Your task to perform on an android device: turn off translation in the chrome app Image 0: 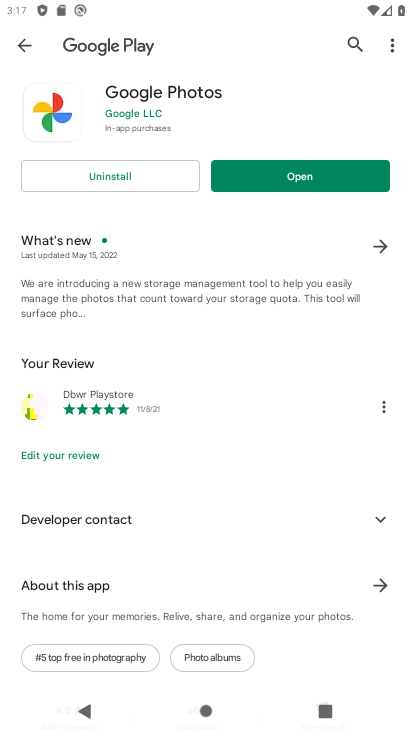
Step 0: press home button
Your task to perform on an android device: turn off translation in the chrome app Image 1: 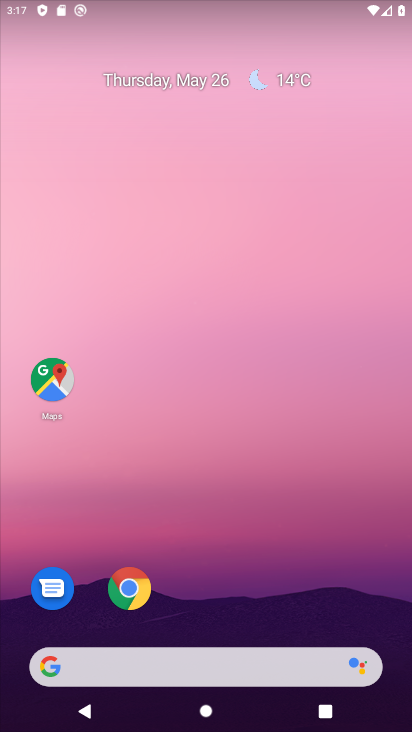
Step 1: drag from (217, 639) to (269, 159)
Your task to perform on an android device: turn off translation in the chrome app Image 2: 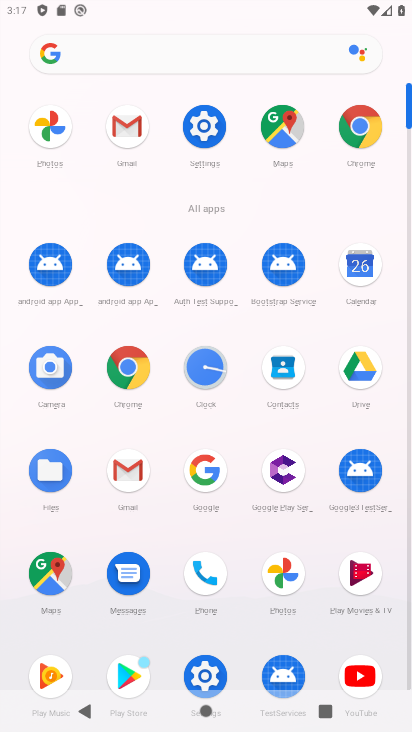
Step 2: click (354, 157)
Your task to perform on an android device: turn off translation in the chrome app Image 3: 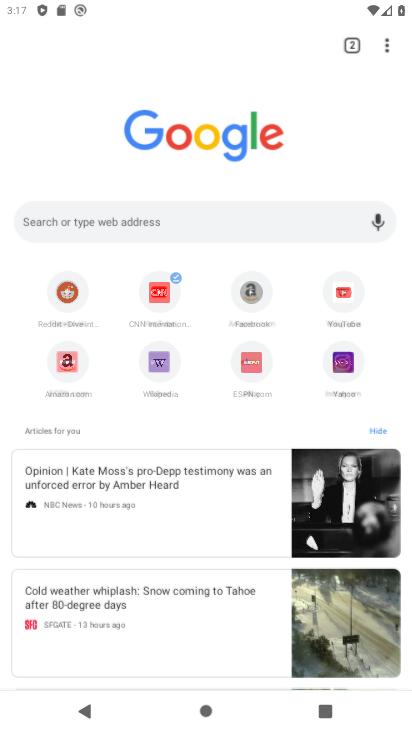
Step 3: click (394, 39)
Your task to perform on an android device: turn off translation in the chrome app Image 4: 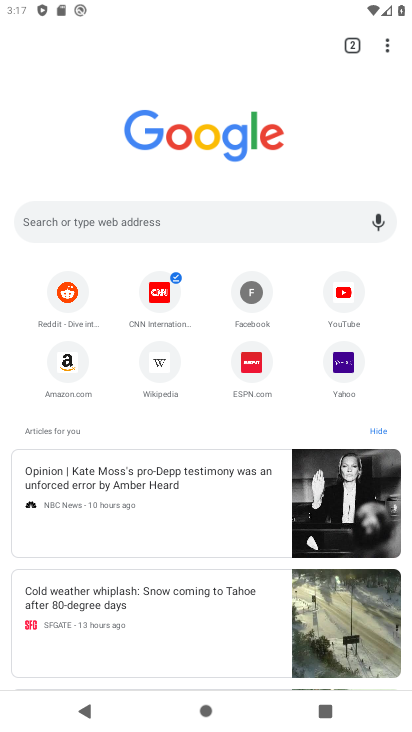
Step 4: click (390, 47)
Your task to perform on an android device: turn off translation in the chrome app Image 5: 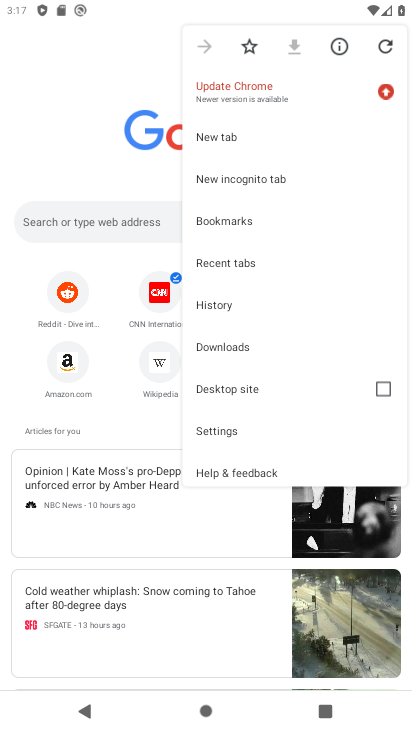
Step 5: click (215, 423)
Your task to perform on an android device: turn off translation in the chrome app Image 6: 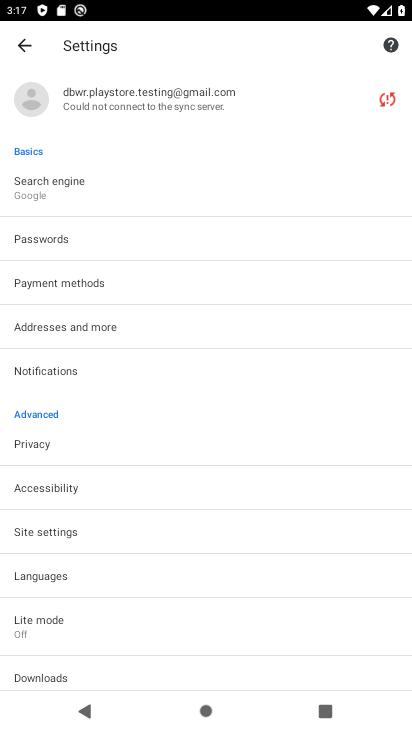
Step 6: click (162, 543)
Your task to perform on an android device: turn off translation in the chrome app Image 7: 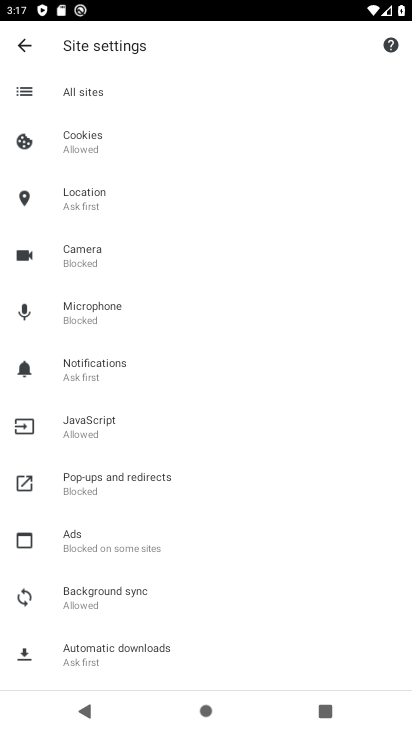
Step 7: task complete